Your task to perform on an android device: open device folders in google photos Image 0: 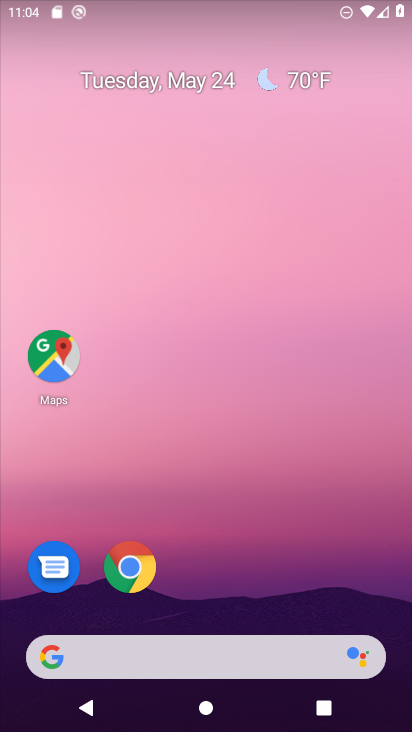
Step 0: drag from (391, 681) to (361, 238)
Your task to perform on an android device: open device folders in google photos Image 1: 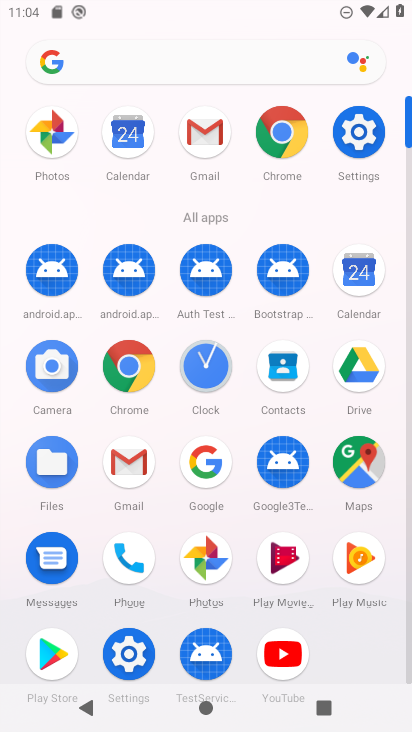
Step 1: click (191, 556)
Your task to perform on an android device: open device folders in google photos Image 2: 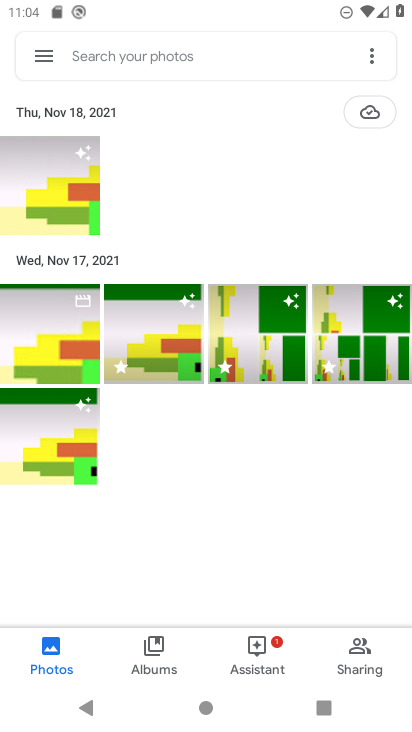
Step 2: click (44, 47)
Your task to perform on an android device: open device folders in google photos Image 3: 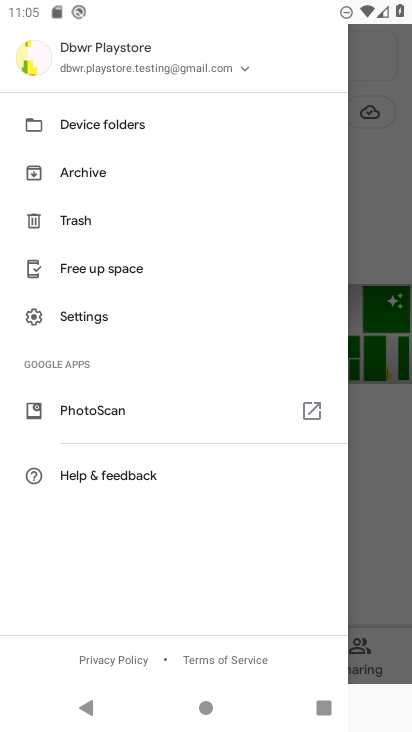
Step 3: click (98, 122)
Your task to perform on an android device: open device folders in google photos Image 4: 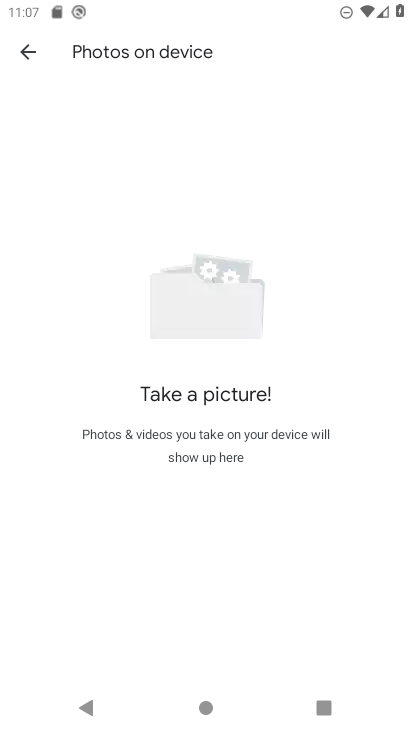
Step 4: task complete